Your task to perform on an android device: Open display settings Image 0: 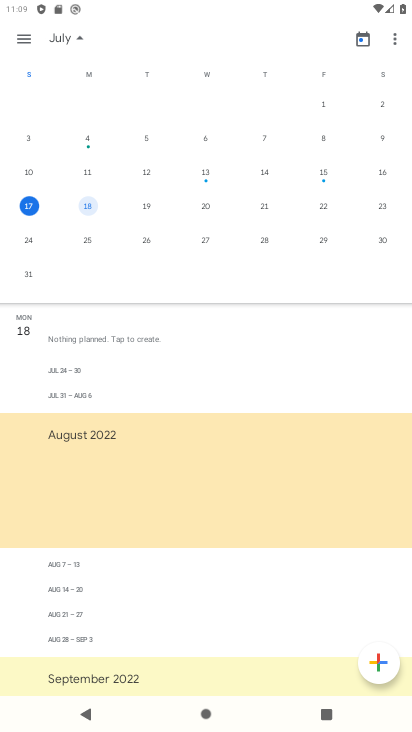
Step 0: press home button
Your task to perform on an android device: Open display settings Image 1: 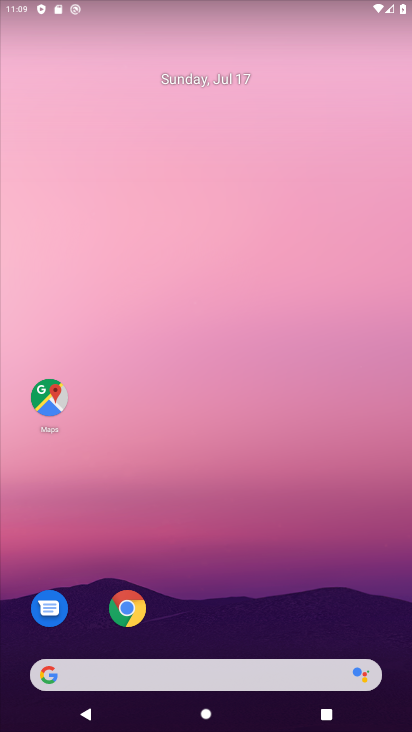
Step 1: drag from (300, 598) to (344, 262)
Your task to perform on an android device: Open display settings Image 2: 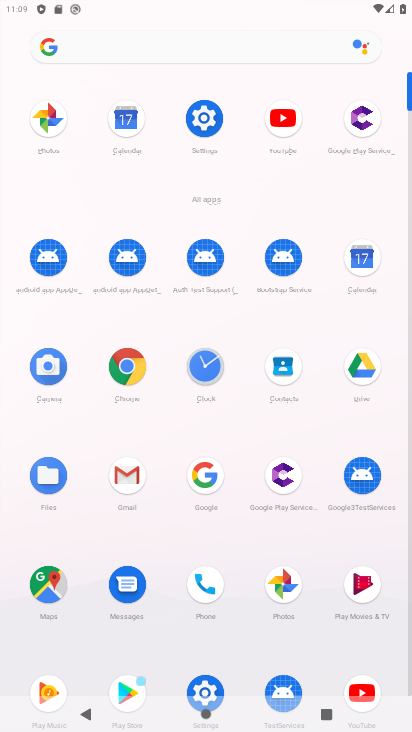
Step 2: click (210, 112)
Your task to perform on an android device: Open display settings Image 3: 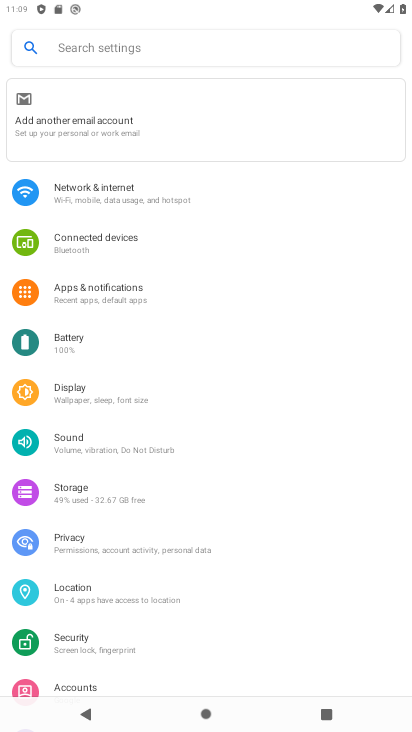
Step 3: click (69, 398)
Your task to perform on an android device: Open display settings Image 4: 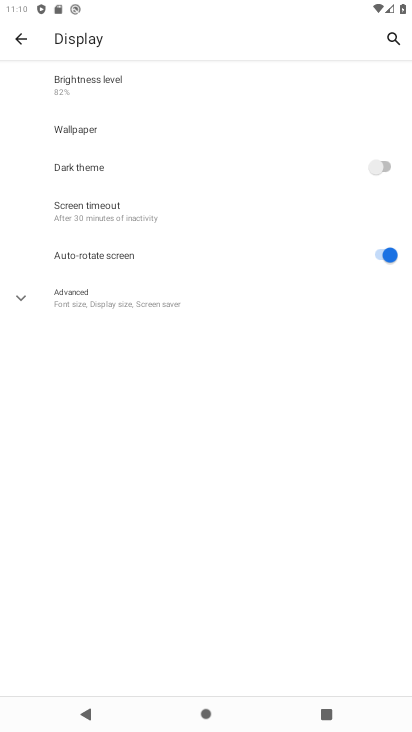
Step 4: task complete